Your task to perform on an android device: Is it going to rain this weekend? Image 0: 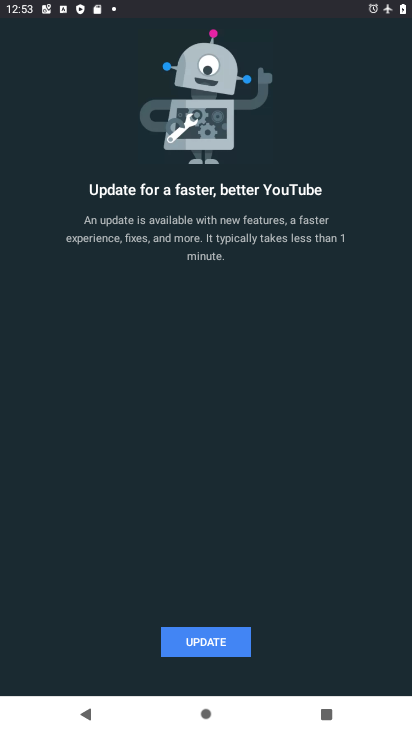
Step 0: press home button
Your task to perform on an android device: Is it going to rain this weekend? Image 1: 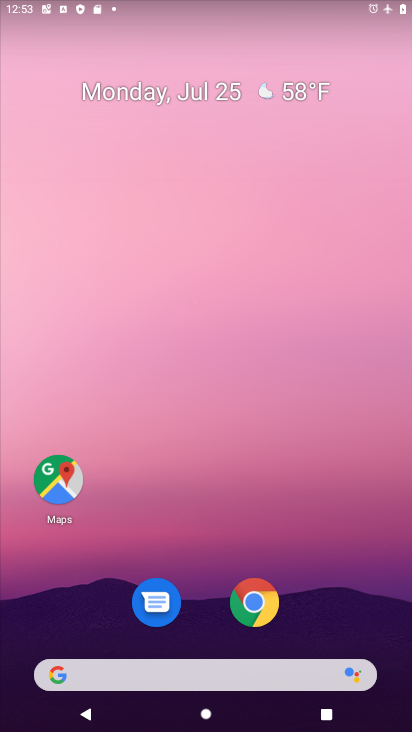
Step 1: drag from (197, 576) to (181, 114)
Your task to perform on an android device: Is it going to rain this weekend? Image 2: 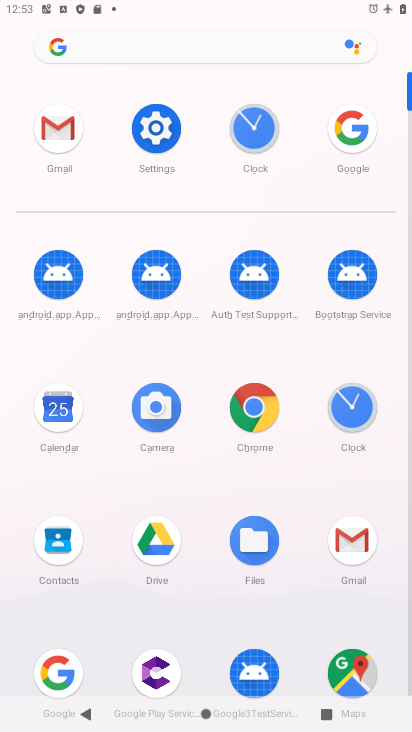
Step 2: click (68, 664)
Your task to perform on an android device: Is it going to rain this weekend? Image 3: 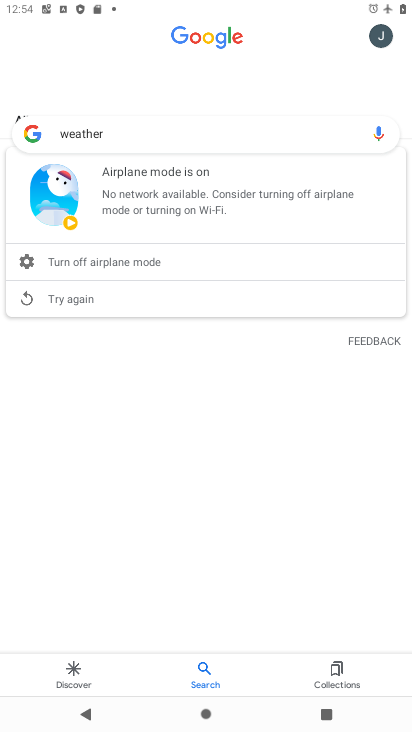
Step 3: click (148, 137)
Your task to perform on an android device: Is it going to rain this weekend? Image 4: 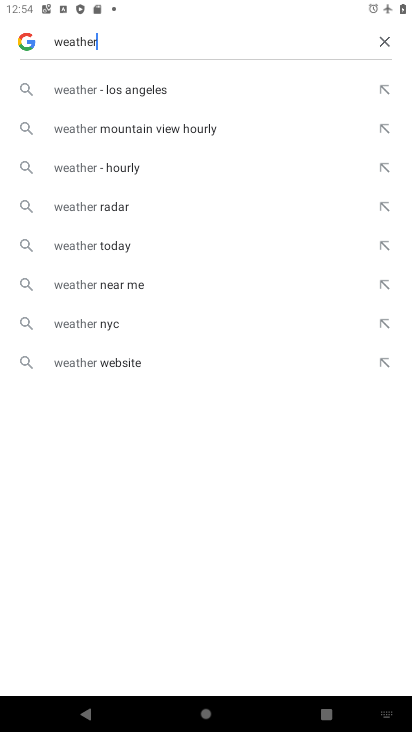
Step 4: task complete